Your task to perform on an android device: Go to Wikipedia Image 0: 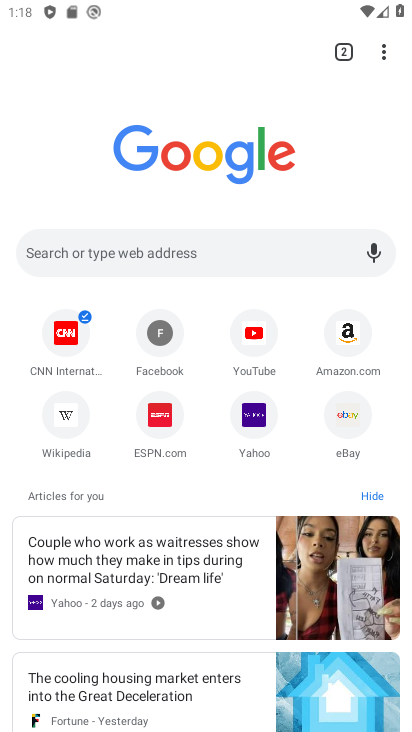
Step 0: press home button
Your task to perform on an android device: Go to Wikipedia Image 1: 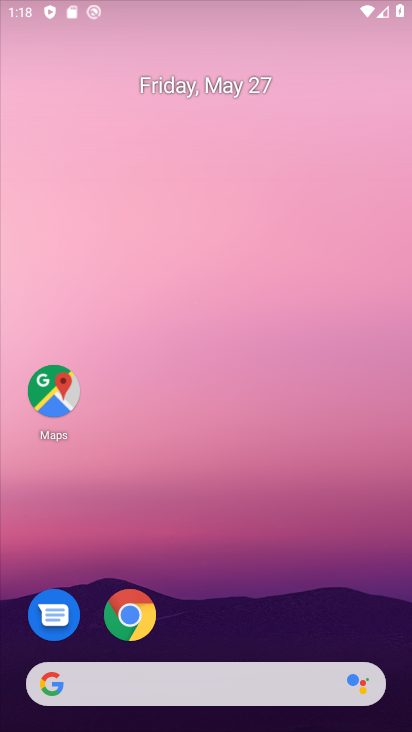
Step 1: drag from (317, 623) to (211, 248)
Your task to perform on an android device: Go to Wikipedia Image 2: 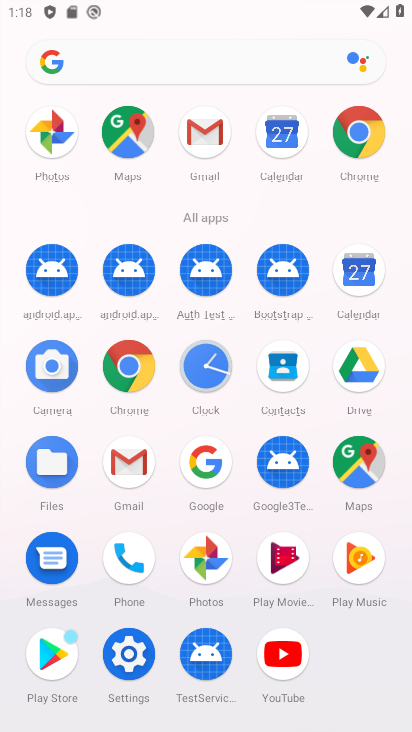
Step 2: click (210, 457)
Your task to perform on an android device: Go to Wikipedia Image 3: 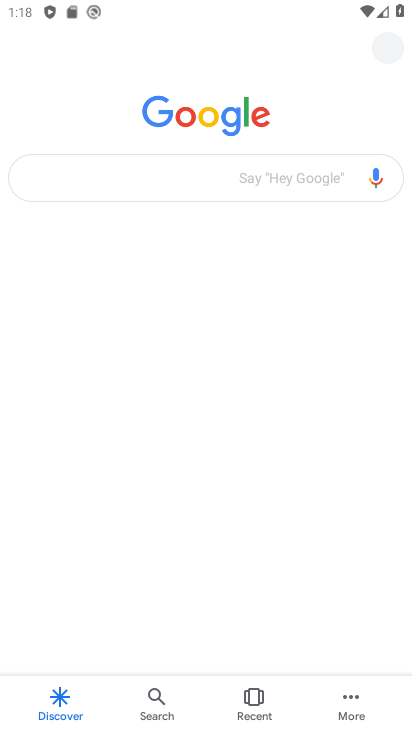
Step 3: click (174, 183)
Your task to perform on an android device: Go to Wikipedia Image 4: 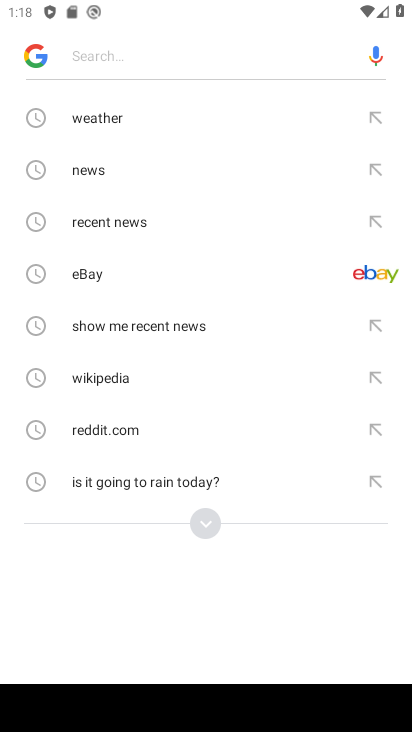
Step 4: click (94, 380)
Your task to perform on an android device: Go to Wikipedia Image 5: 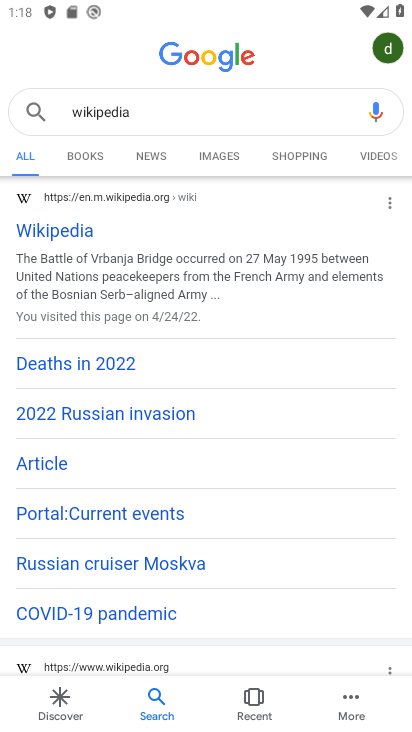
Step 5: click (37, 228)
Your task to perform on an android device: Go to Wikipedia Image 6: 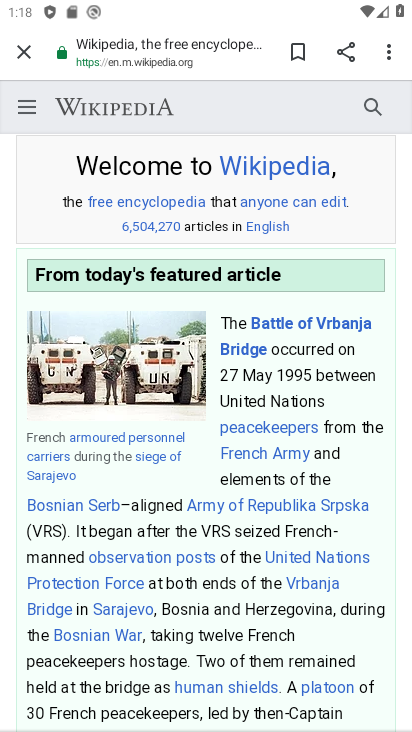
Step 6: task complete